Your task to perform on an android device: turn off notifications in google photos Image 0: 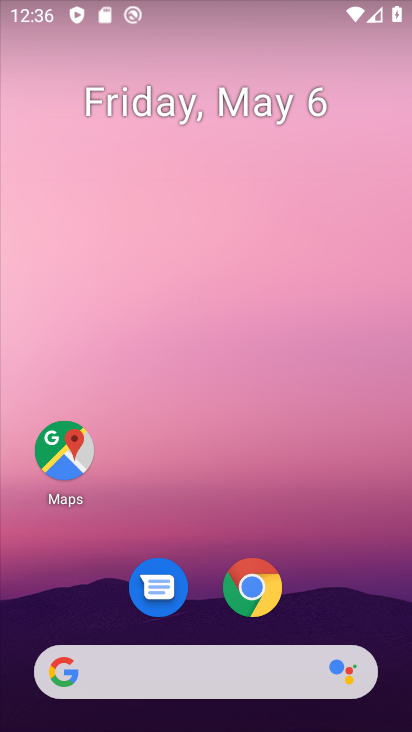
Step 0: drag from (36, 614) to (304, 71)
Your task to perform on an android device: turn off notifications in google photos Image 1: 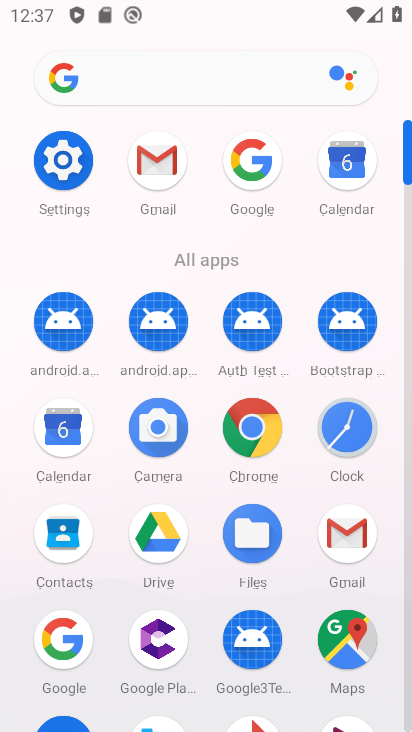
Step 1: drag from (70, 668) to (244, 356)
Your task to perform on an android device: turn off notifications in google photos Image 2: 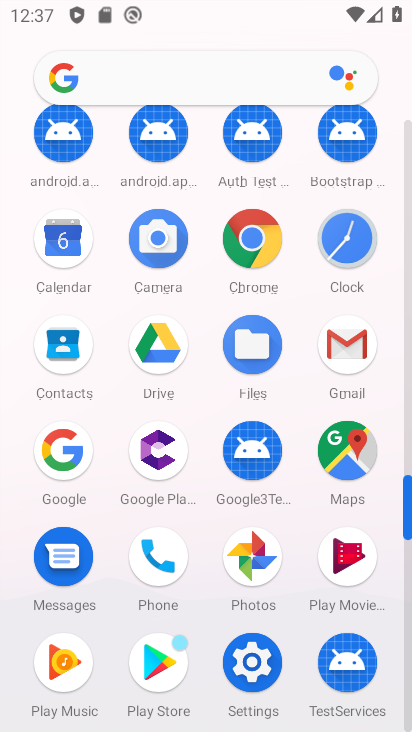
Step 2: click (270, 542)
Your task to perform on an android device: turn off notifications in google photos Image 3: 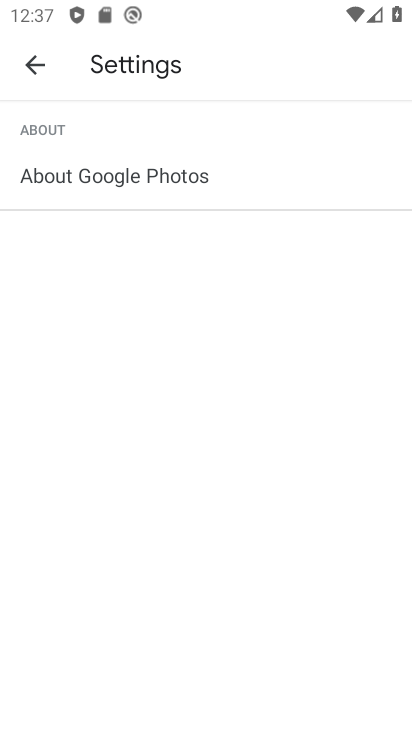
Step 3: press back button
Your task to perform on an android device: turn off notifications in google photos Image 4: 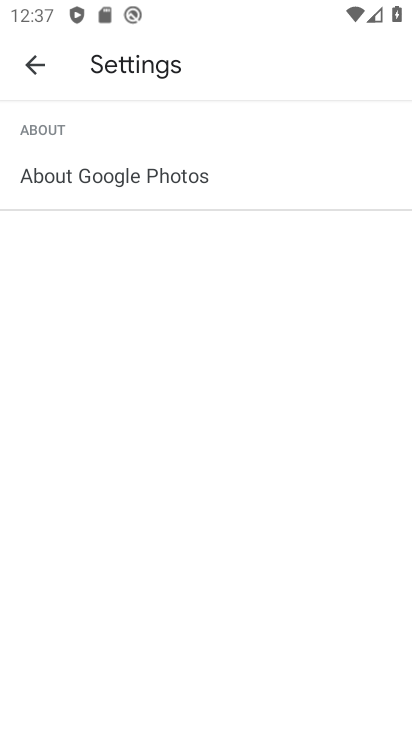
Step 4: press back button
Your task to perform on an android device: turn off notifications in google photos Image 5: 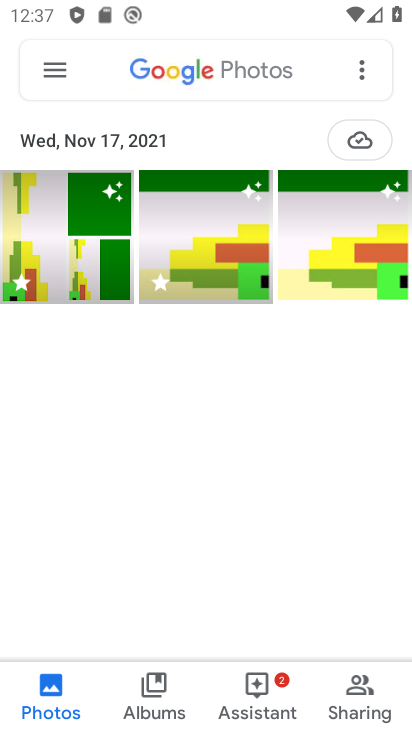
Step 5: click (54, 70)
Your task to perform on an android device: turn off notifications in google photos Image 6: 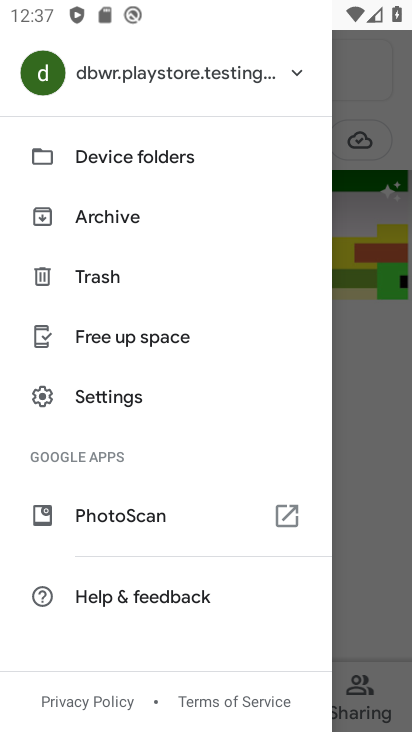
Step 6: click (94, 402)
Your task to perform on an android device: turn off notifications in google photos Image 7: 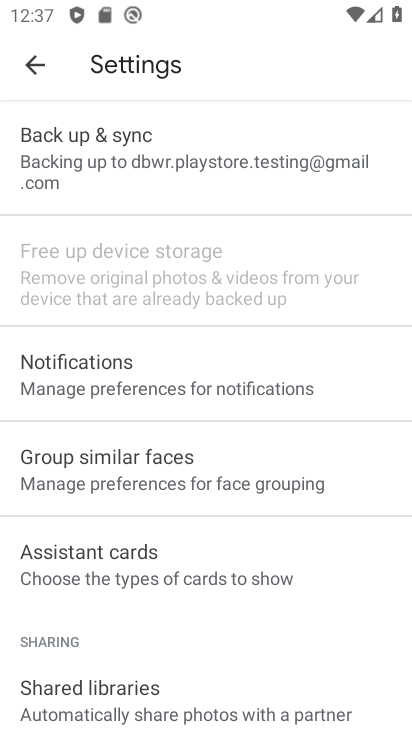
Step 7: drag from (118, 615) to (213, 207)
Your task to perform on an android device: turn off notifications in google photos Image 8: 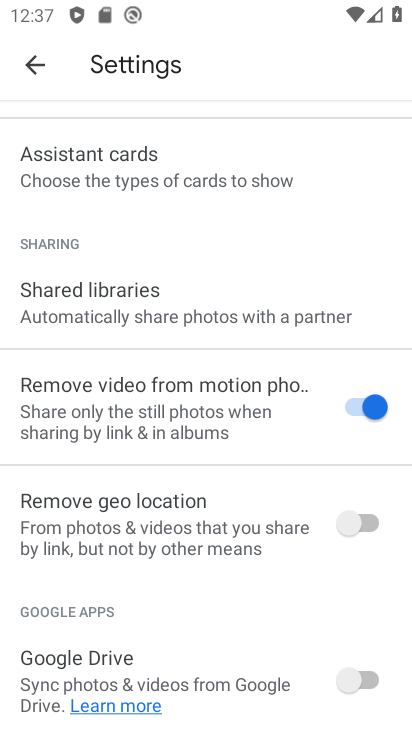
Step 8: drag from (225, 171) to (160, 507)
Your task to perform on an android device: turn off notifications in google photos Image 9: 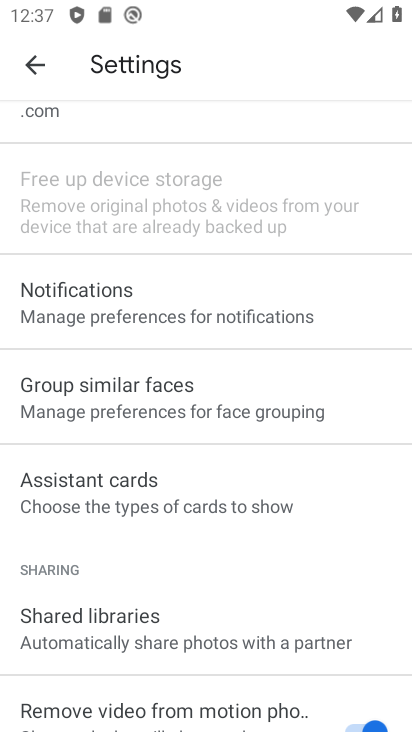
Step 9: click (190, 287)
Your task to perform on an android device: turn off notifications in google photos Image 10: 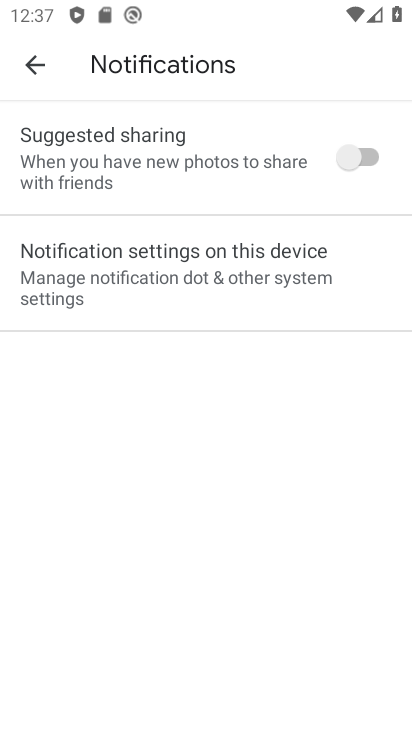
Step 10: click (361, 268)
Your task to perform on an android device: turn off notifications in google photos Image 11: 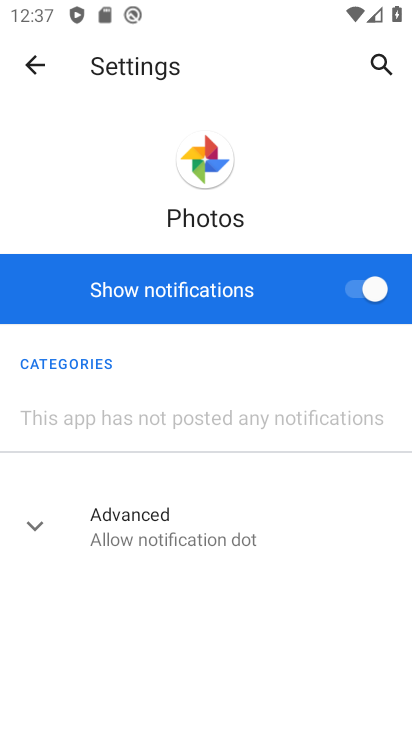
Step 11: click (367, 294)
Your task to perform on an android device: turn off notifications in google photos Image 12: 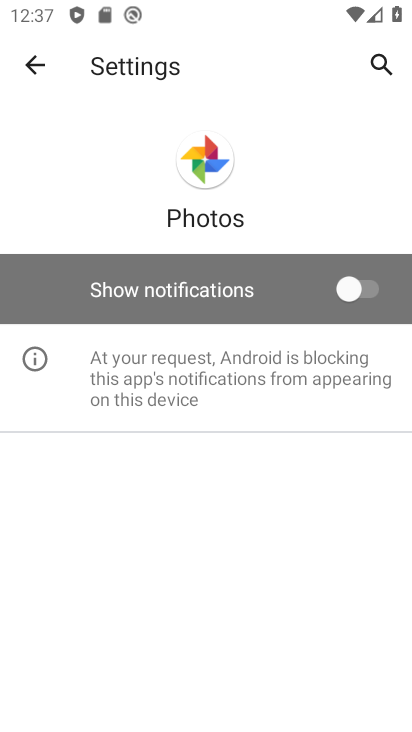
Step 12: task complete